Your task to perform on an android device: open app "Google Chrome" Image 0: 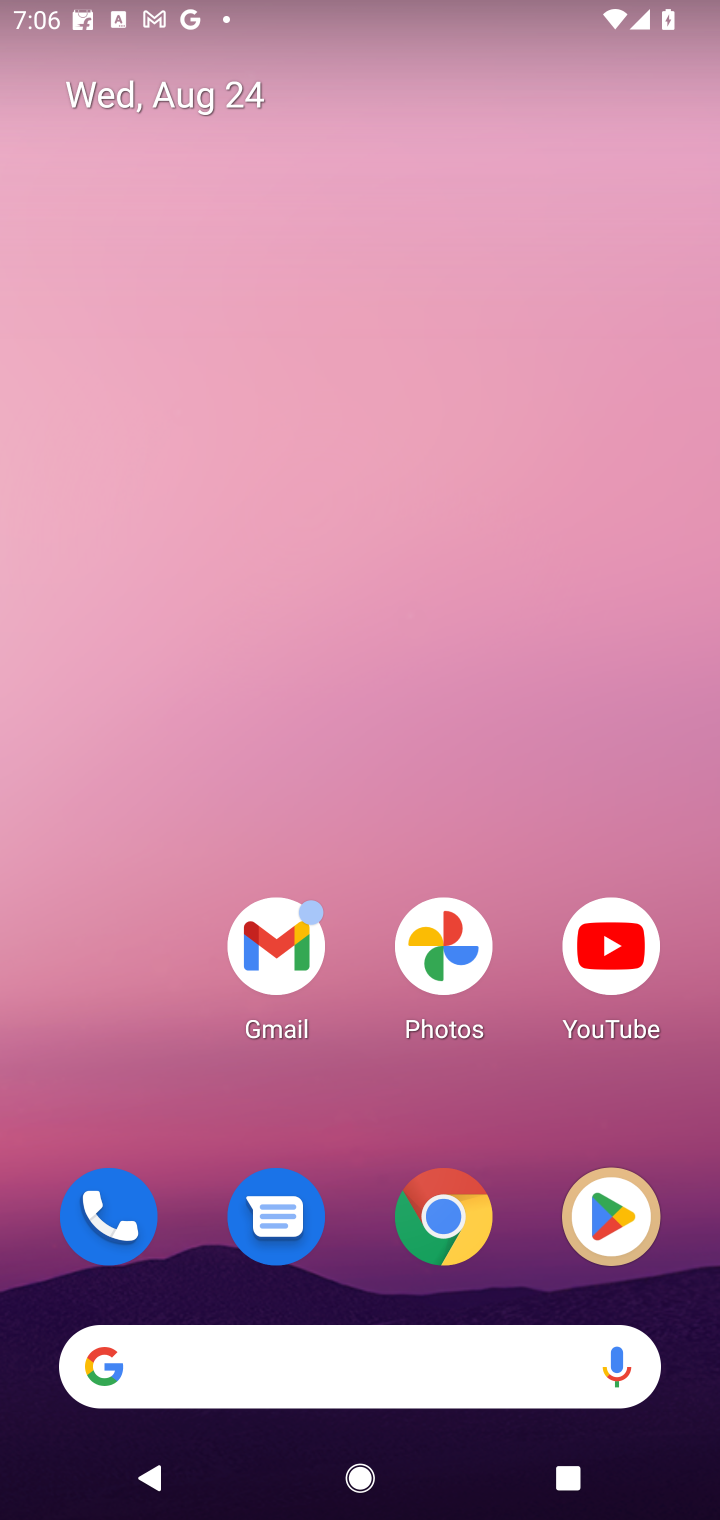
Step 0: click (620, 1204)
Your task to perform on an android device: open app "Google Chrome" Image 1: 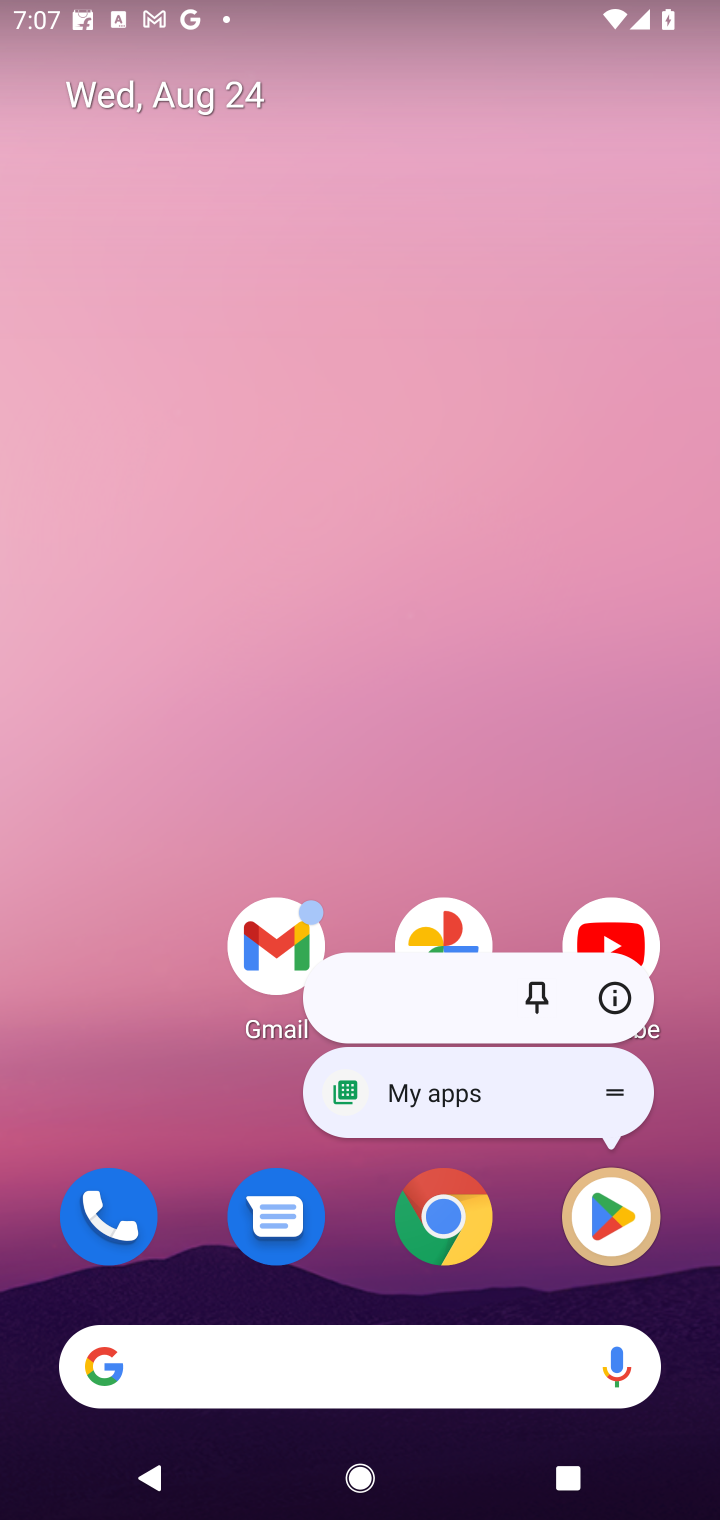
Step 1: click (605, 1184)
Your task to perform on an android device: open app "Google Chrome" Image 2: 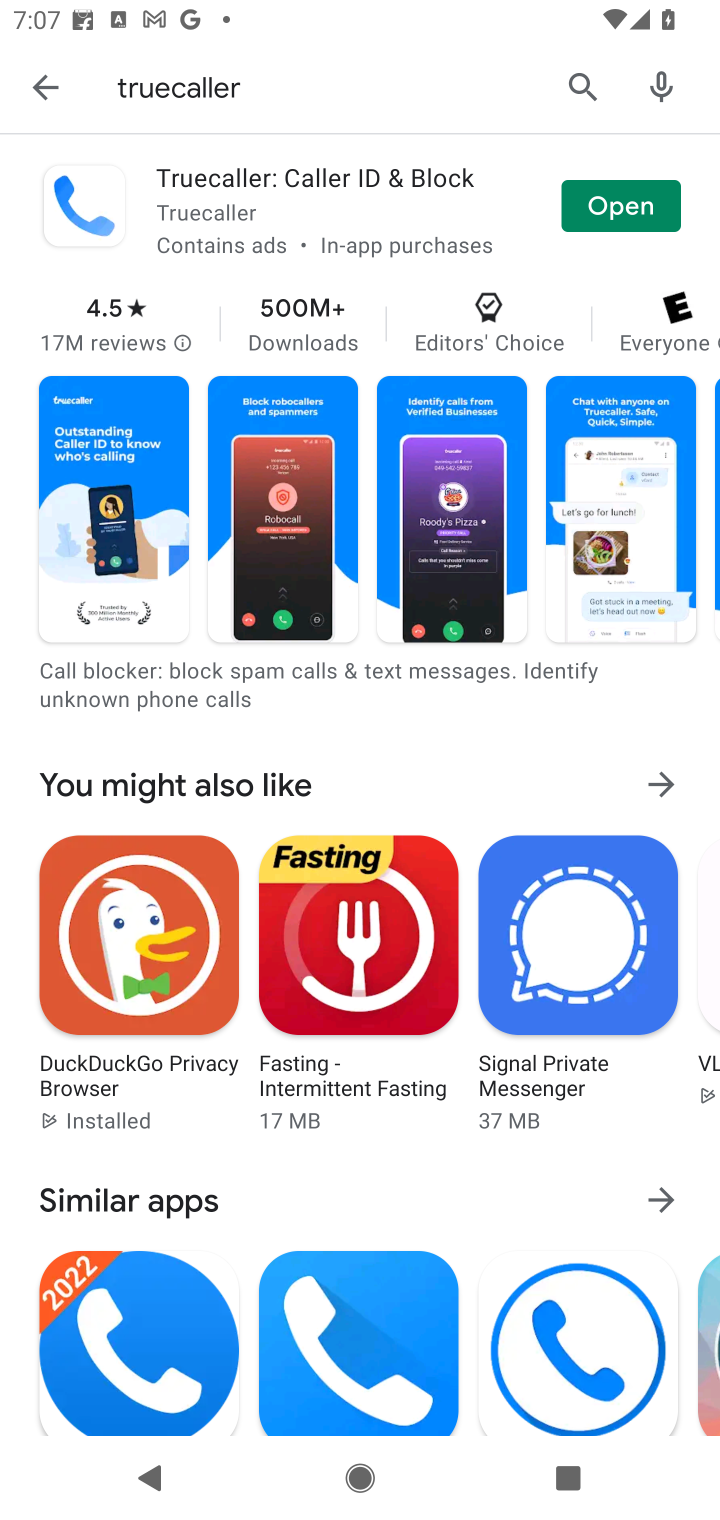
Step 2: click (579, 71)
Your task to perform on an android device: open app "Google Chrome" Image 3: 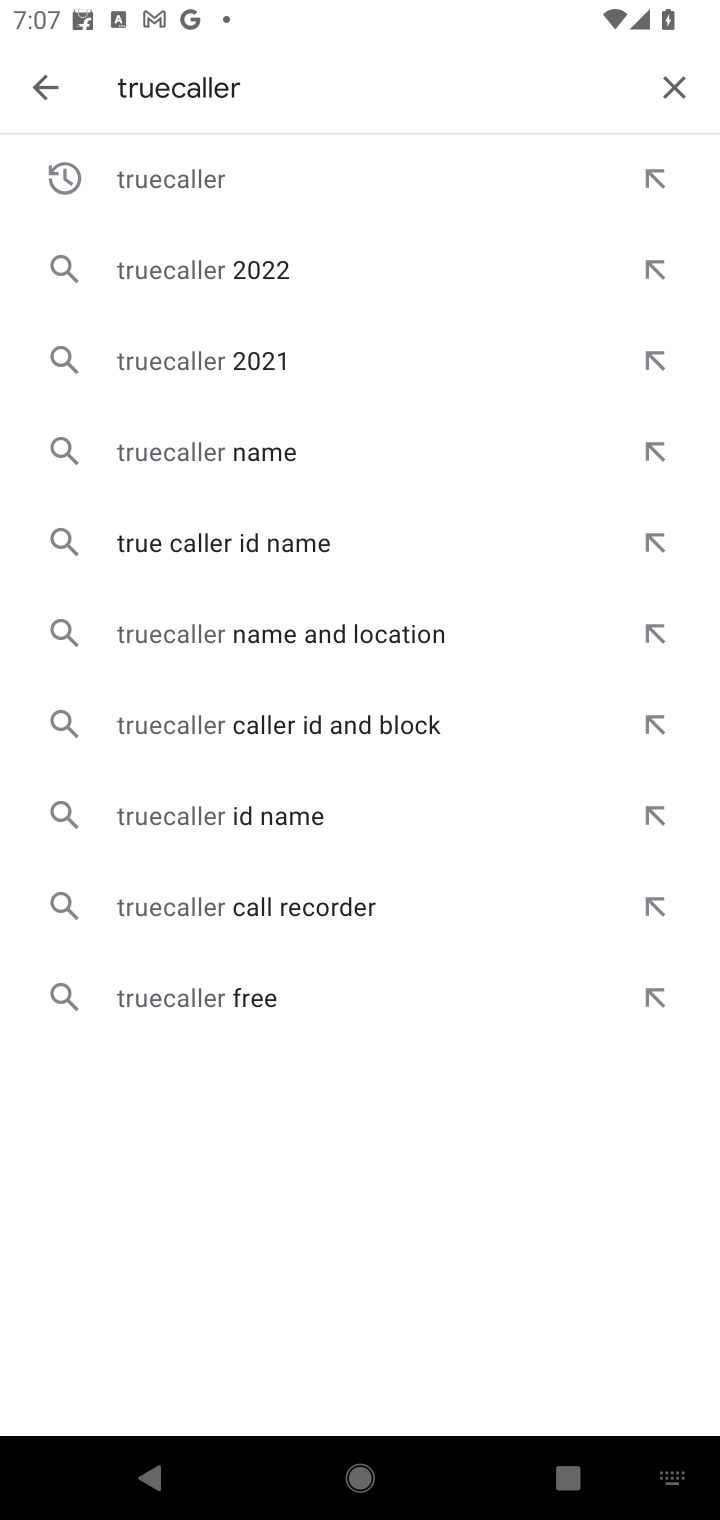
Step 3: click (670, 80)
Your task to perform on an android device: open app "Google Chrome" Image 4: 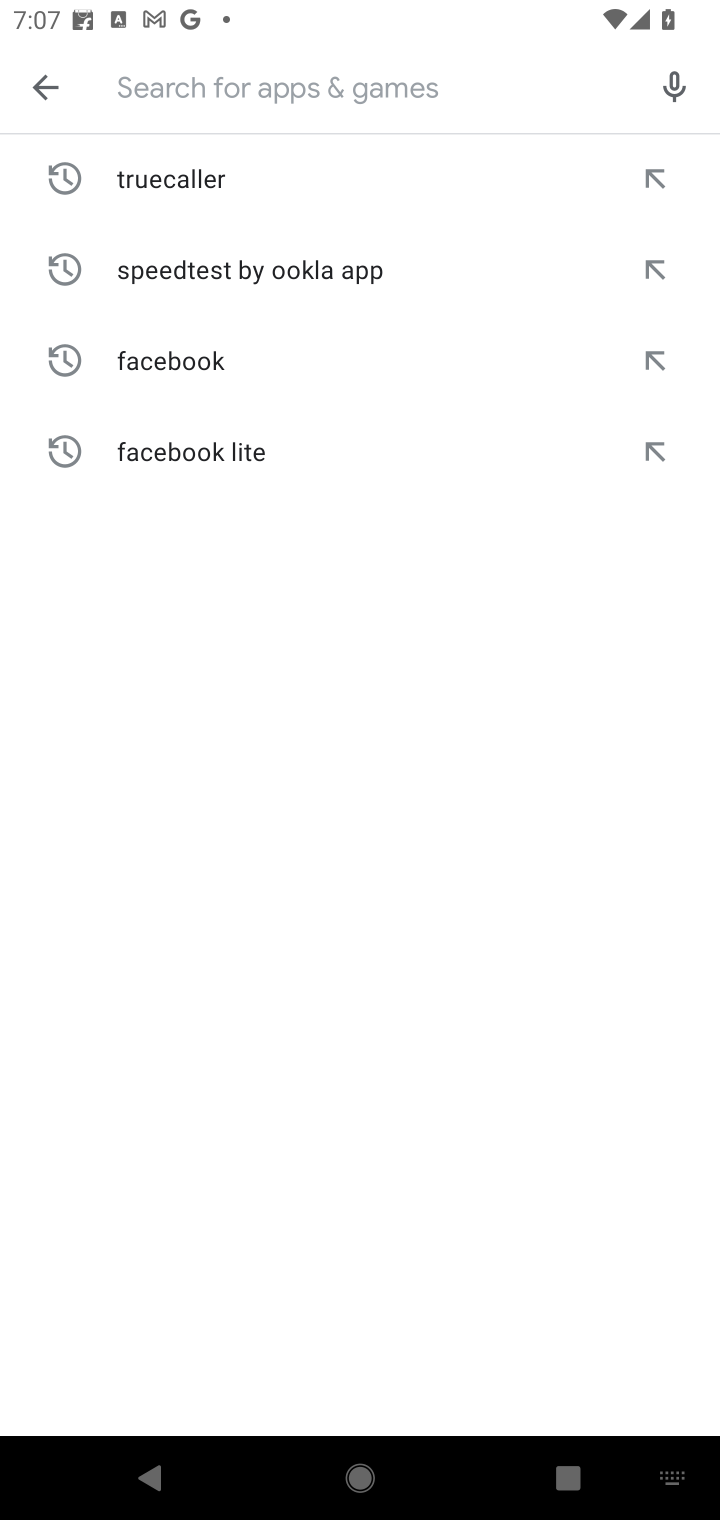
Step 4: type "Google Chrome"
Your task to perform on an android device: open app "Google Chrome" Image 5: 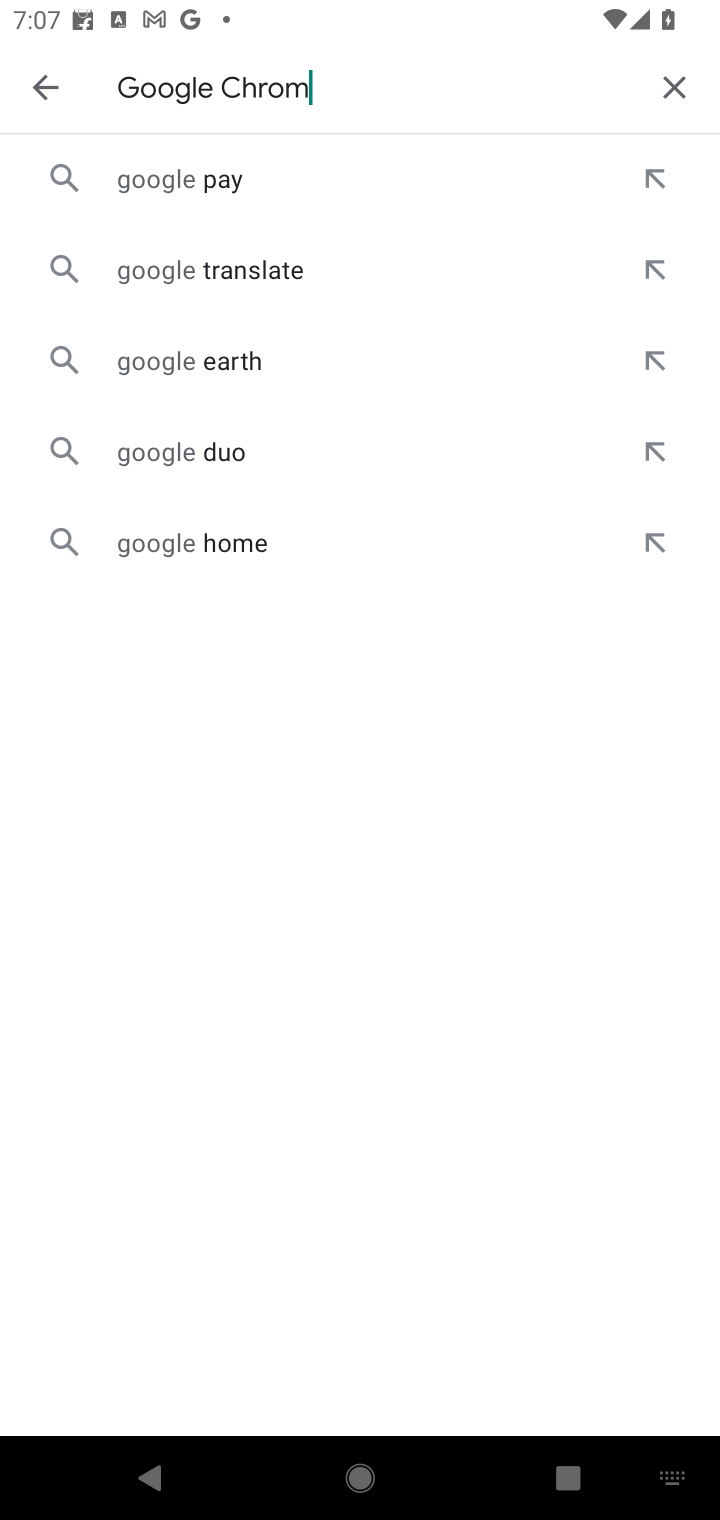
Step 5: type ""
Your task to perform on an android device: open app "Google Chrome" Image 6: 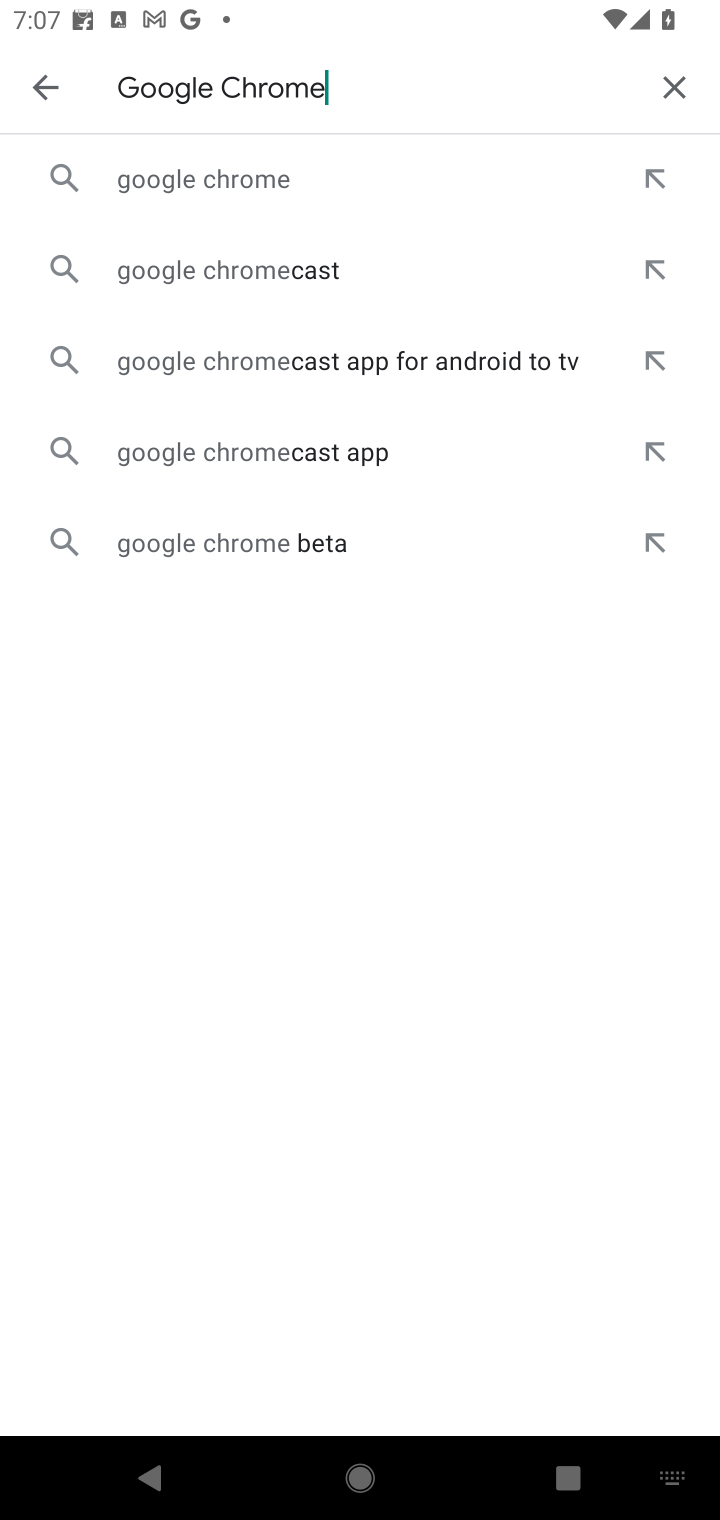
Step 6: click (144, 190)
Your task to perform on an android device: open app "Google Chrome" Image 7: 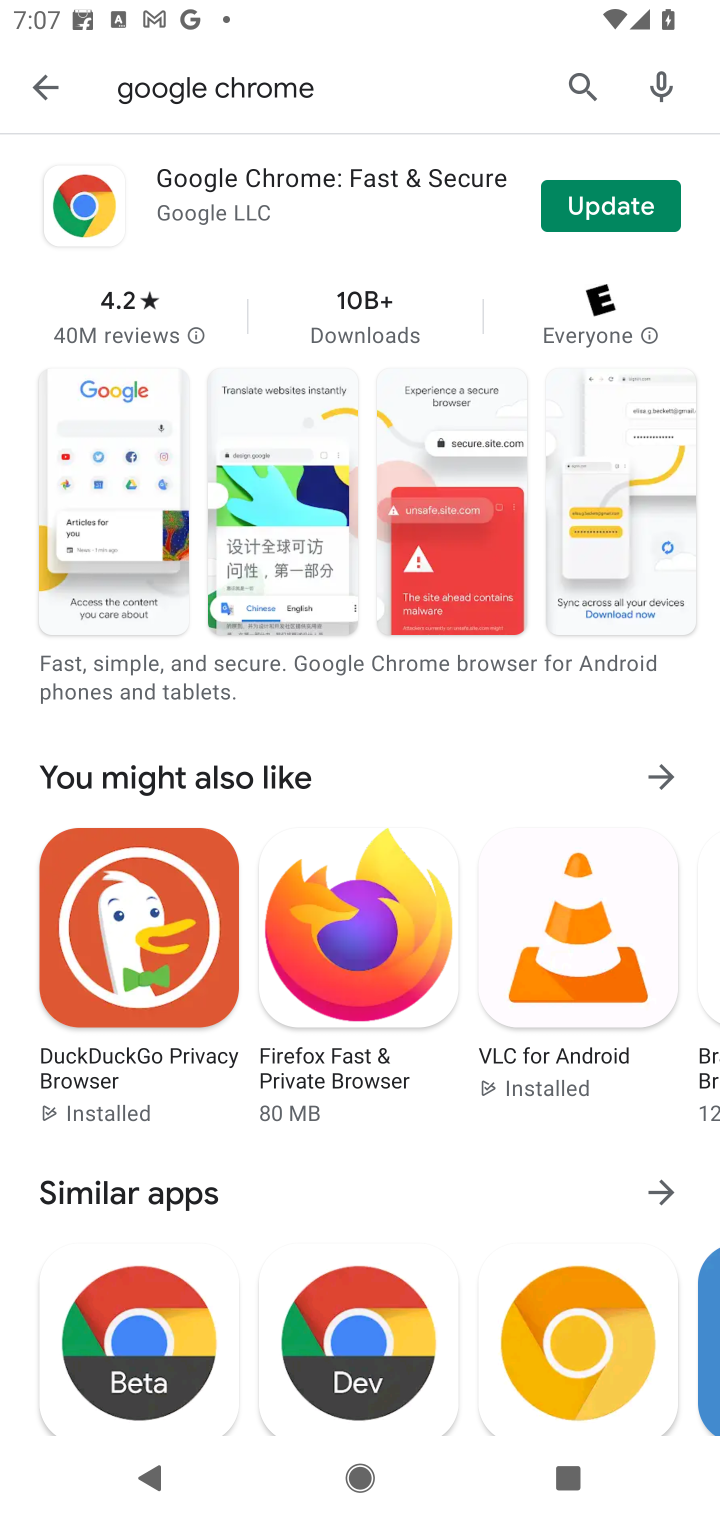
Step 7: click (417, 179)
Your task to perform on an android device: open app "Google Chrome" Image 8: 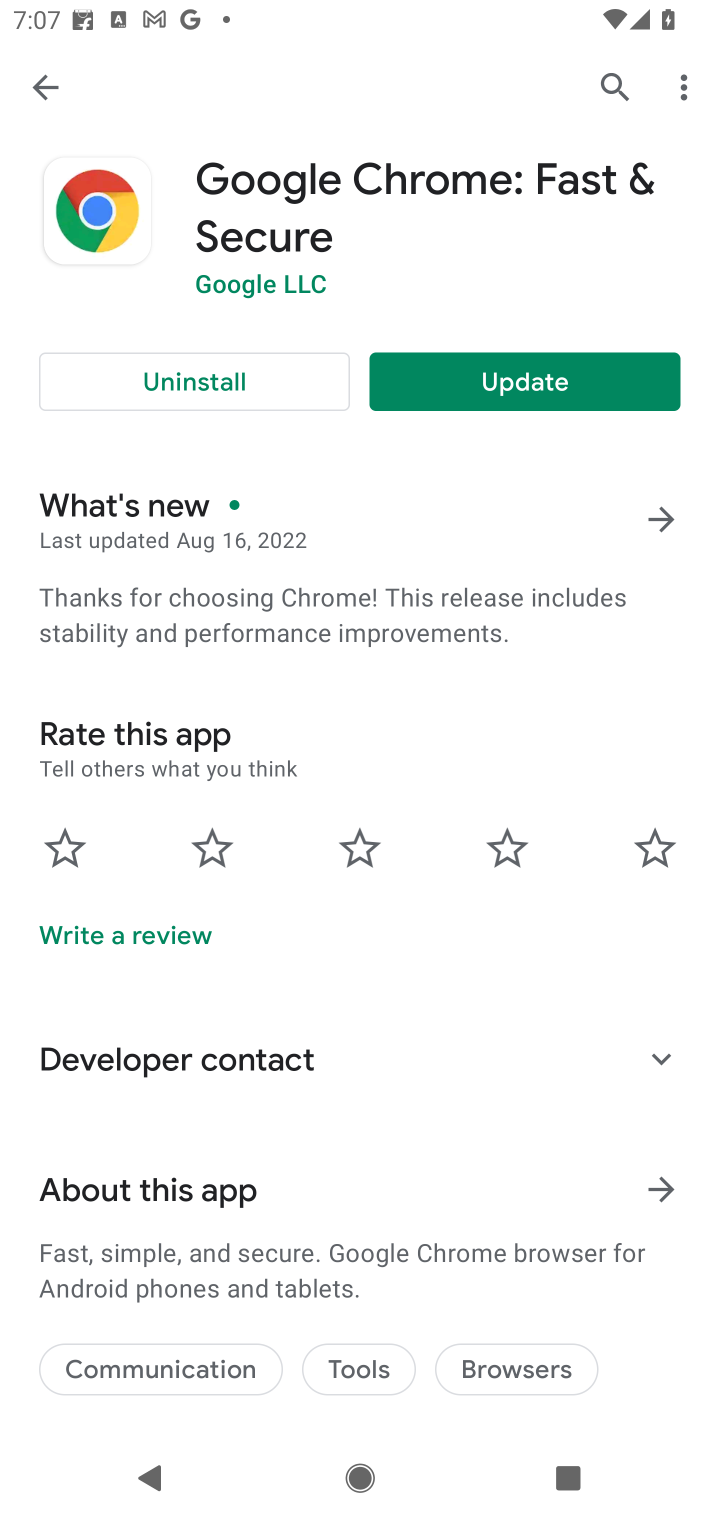
Step 8: click (551, 393)
Your task to perform on an android device: open app "Google Chrome" Image 9: 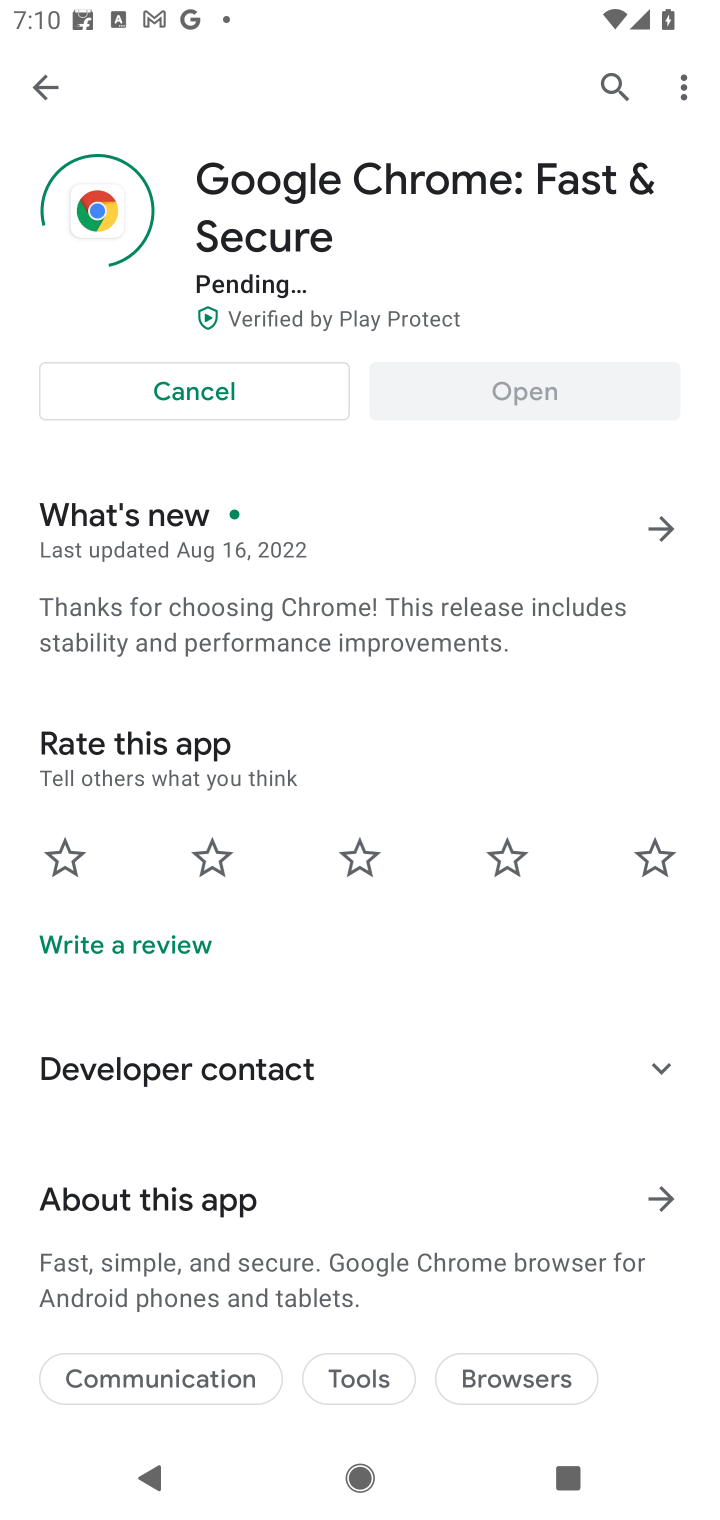
Step 9: task complete